Your task to perform on an android device: all mails in gmail Image 0: 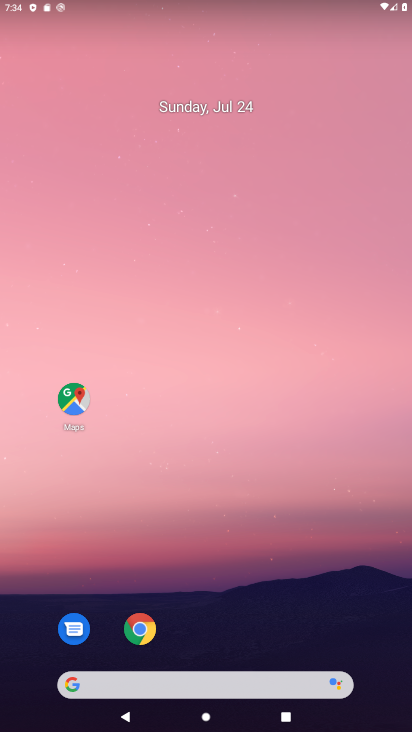
Step 0: drag from (222, 634) to (265, 134)
Your task to perform on an android device: all mails in gmail Image 1: 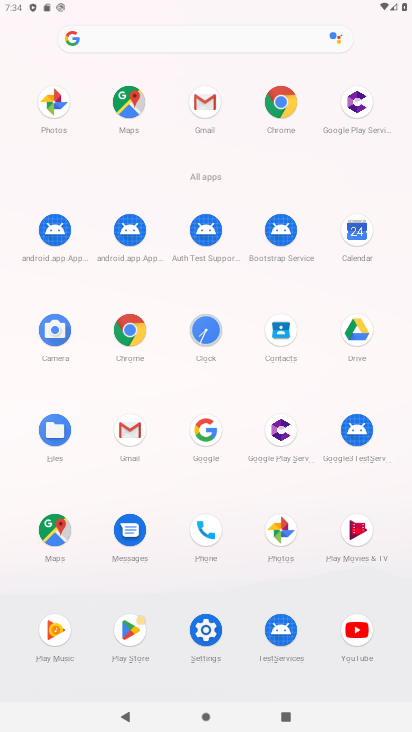
Step 1: click (130, 457)
Your task to perform on an android device: all mails in gmail Image 2: 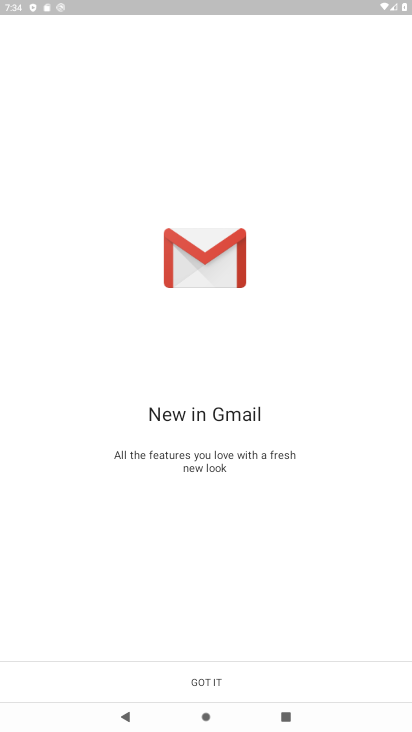
Step 2: click (173, 682)
Your task to perform on an android device: all mails in gmail Image 3: 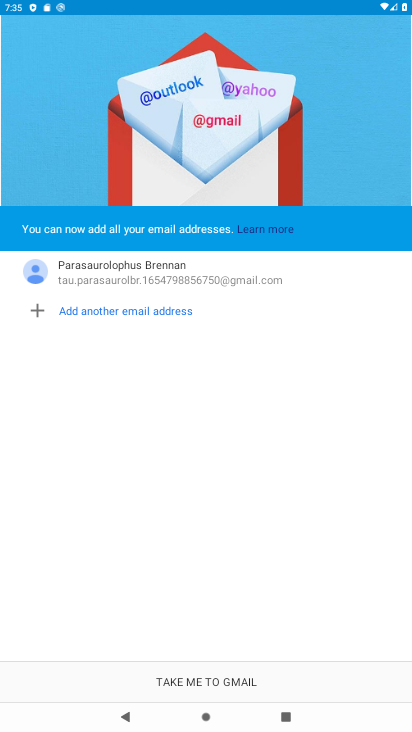
Step 3: click (172, 673)
Your task to perform on an android device: all mails in gmail Image 4: 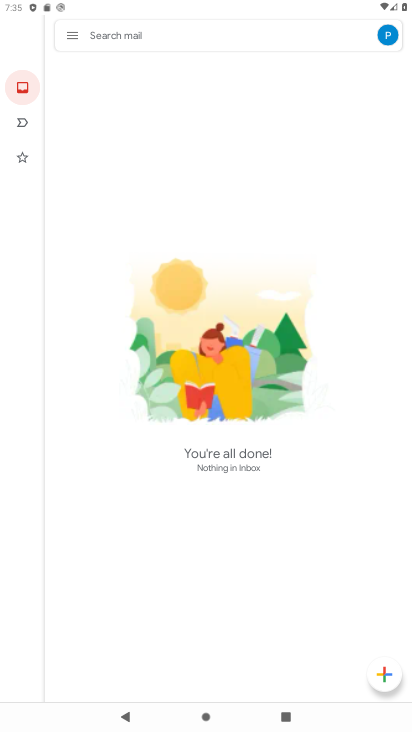
Step 4: click (73, 44)
Your task to perform on an android device: all mails in gmail Image 5: 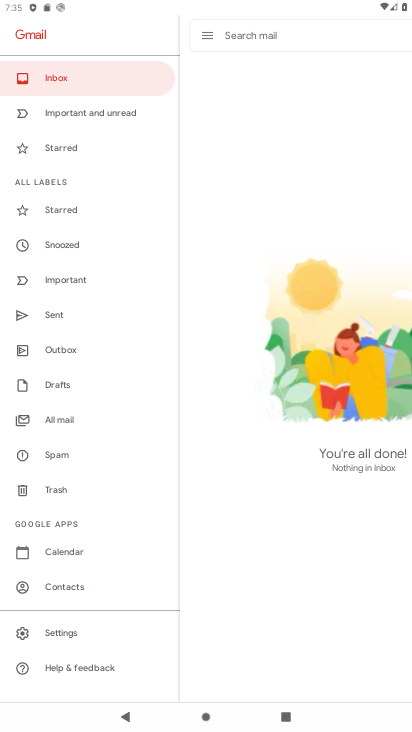
Step 5: click (80, 416)
Your task to perform on an android device: all mails in gmail Image 6: 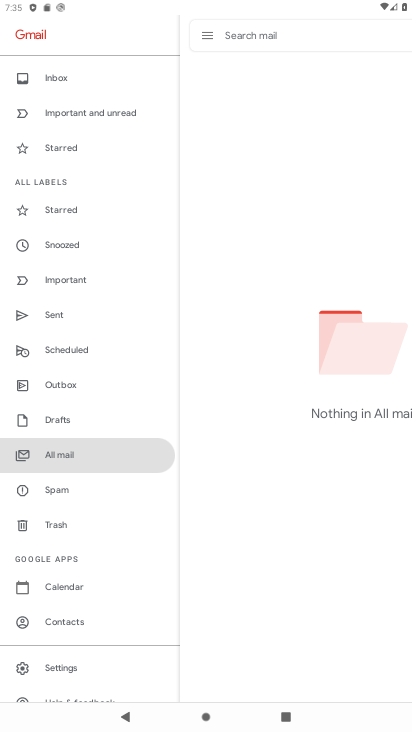
Step 6: task complete